Your task to perform on an android device: add a contact Image 0: 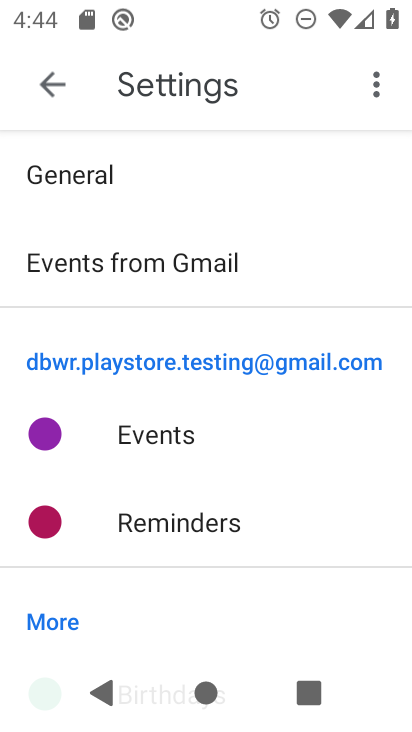
Step 0: press home button
Your task to perform on an android device: add a contact Image 1: 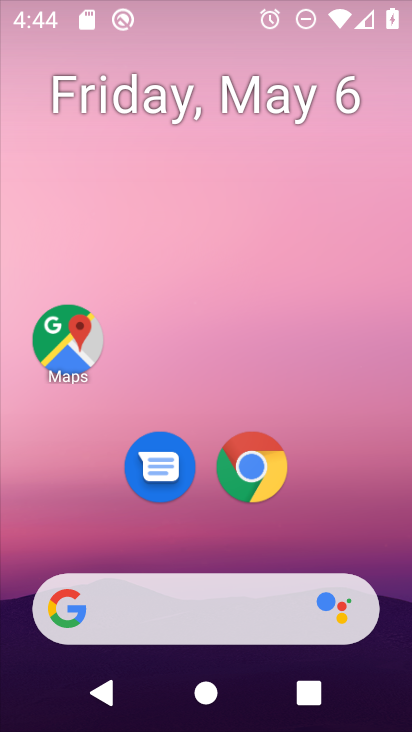
Step 1: drag from (286, 543) to (310, 124)
Your task to perform on an android device: add a contact Image 2: 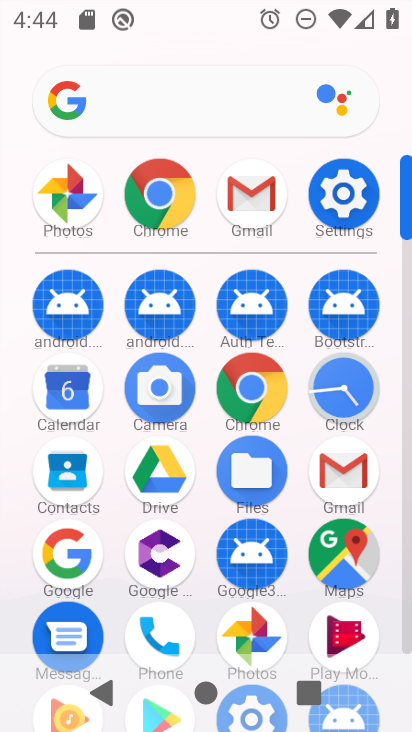
Step 2: click (81, 479)
Your task to perform on an android device: add a contact Image 3: 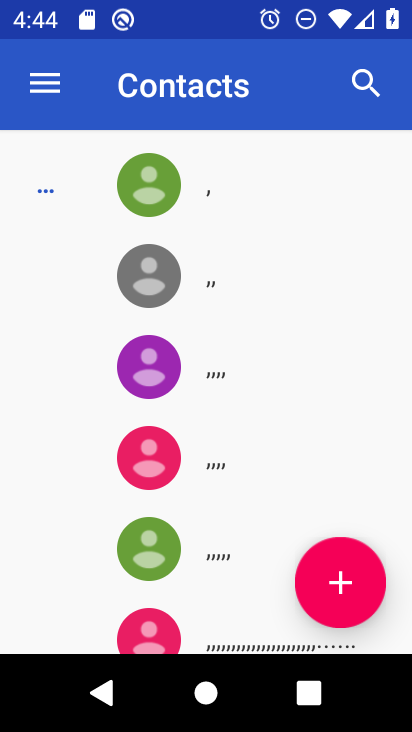
Step 3: click (325, 605)
Your task to perform on an android device: add a contact Image 4: 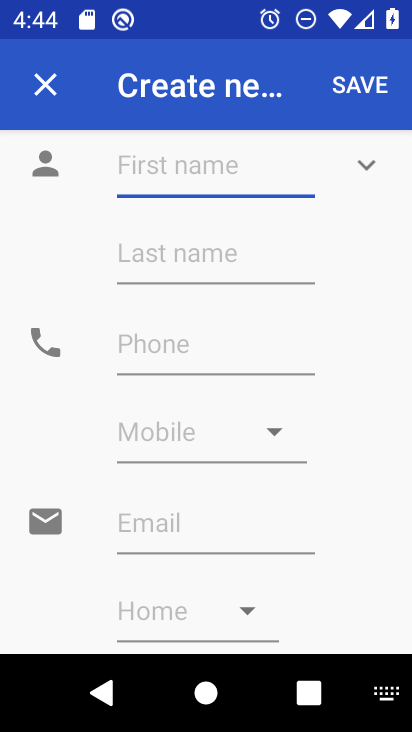
Step 4: click (219, 179)
Your task to perform on an android device: add a contact Image 5: 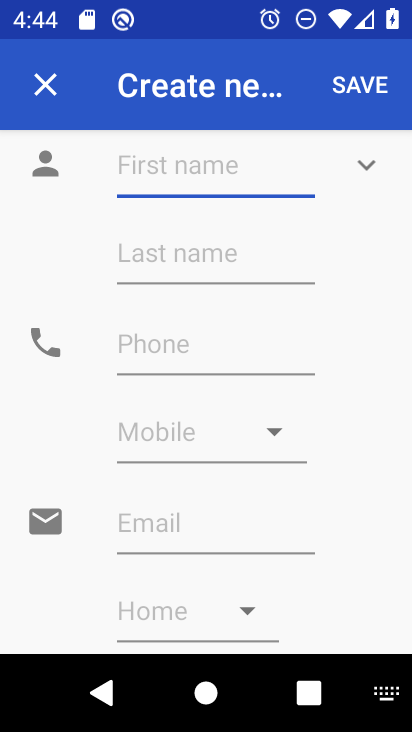
Step 5: type "tanna"
Your task to perform on an android device: add a contact Image 6: 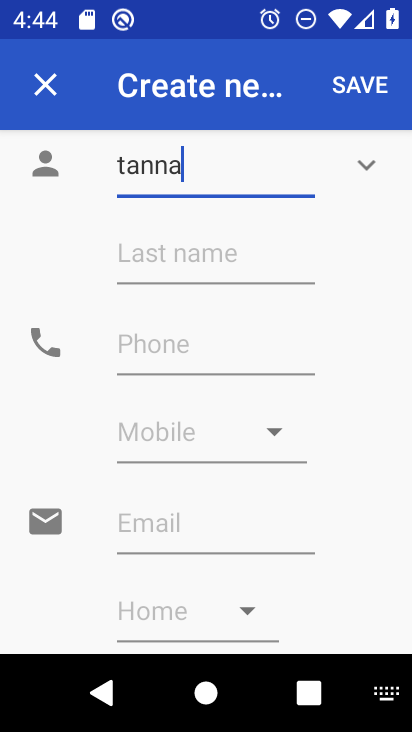
Step 6: click (178, 276)
Your task to perform on an android device: add a contact Image 7: 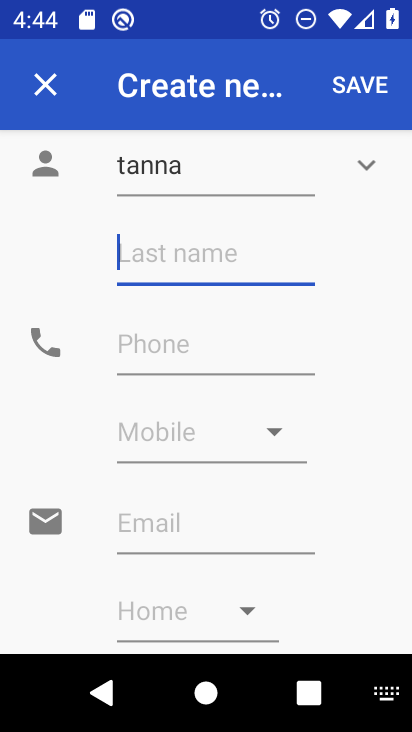
Step 7: click (178, 265)
Your task to perform on an android device: add a contact Image 8: 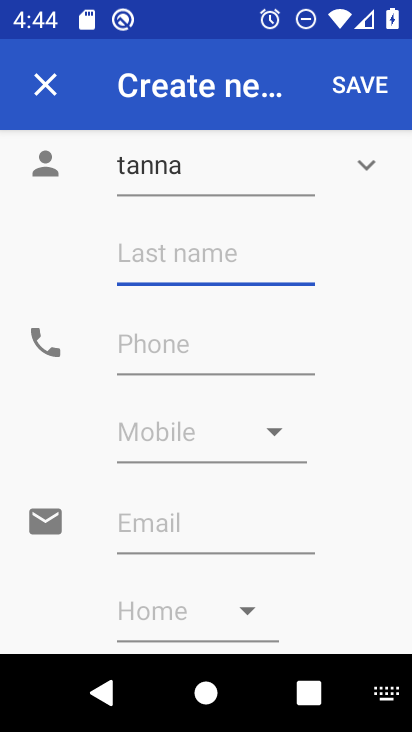
Step 8: type "malik"
Your task to perform on an android device: add a contact Image 9: 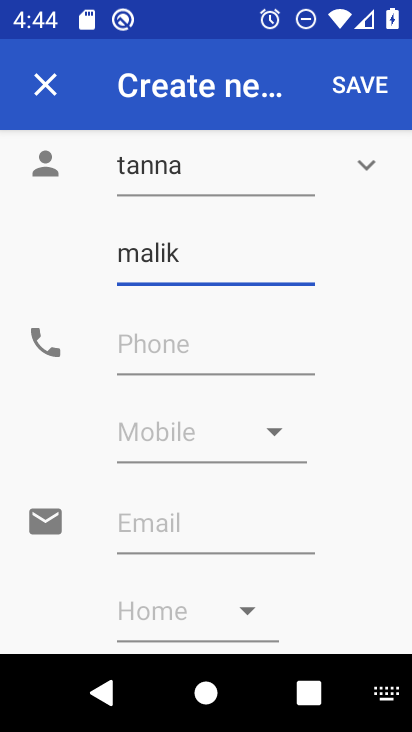
Step 9: click (235, 340)
Your task to perform on an android device: add a contact Image 10: 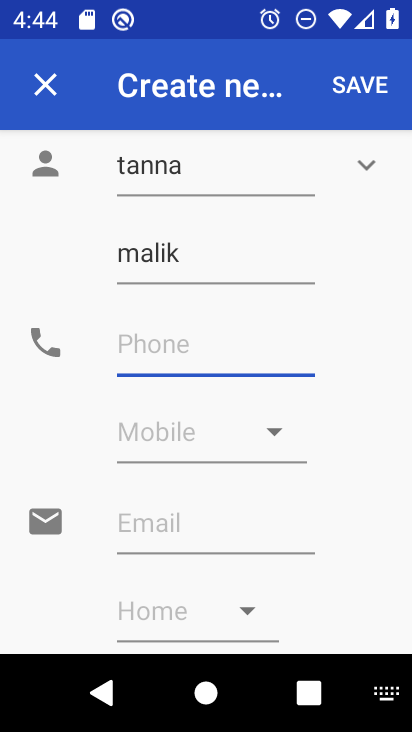
Step 10: type "8909876589"
Your task to perform on an android device: add a contact Image 11: 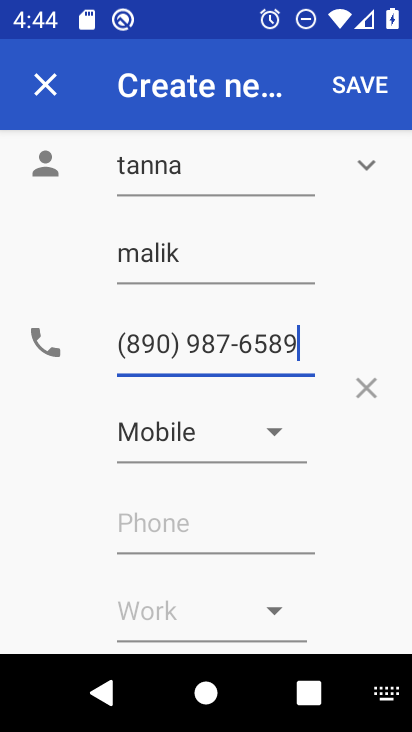
Step 11: click (366, 99)
Your task to perform on an android device: add a contact Image 12: 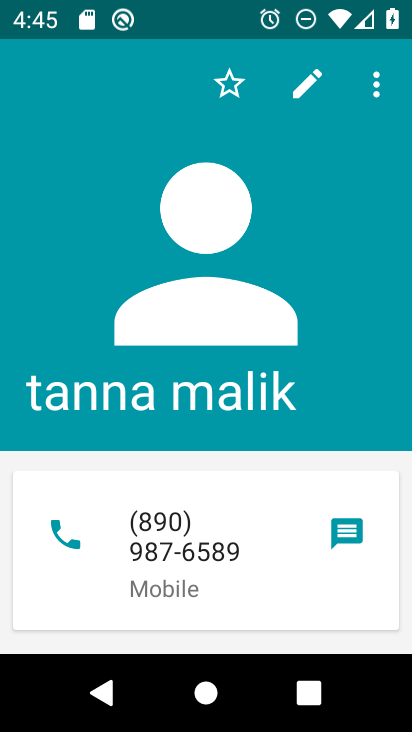
Step 12: task complete